Your task to perform on an android device: What is the news today? Image 0: 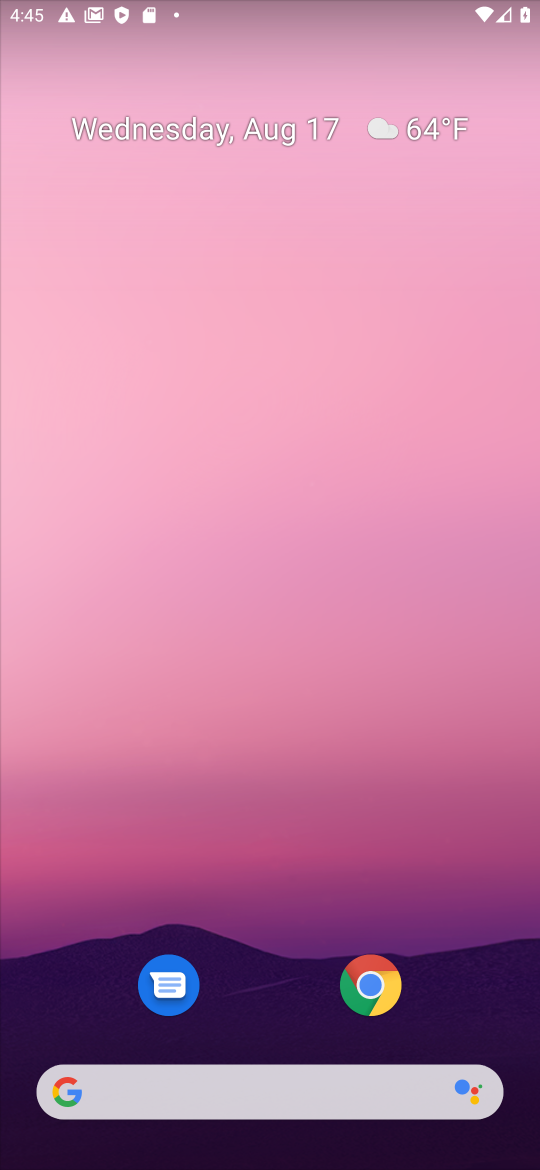
Step 0: drag from (237, 1117) to (340, 341)
Your task to perform on an android device: What is the news today? Image 1: 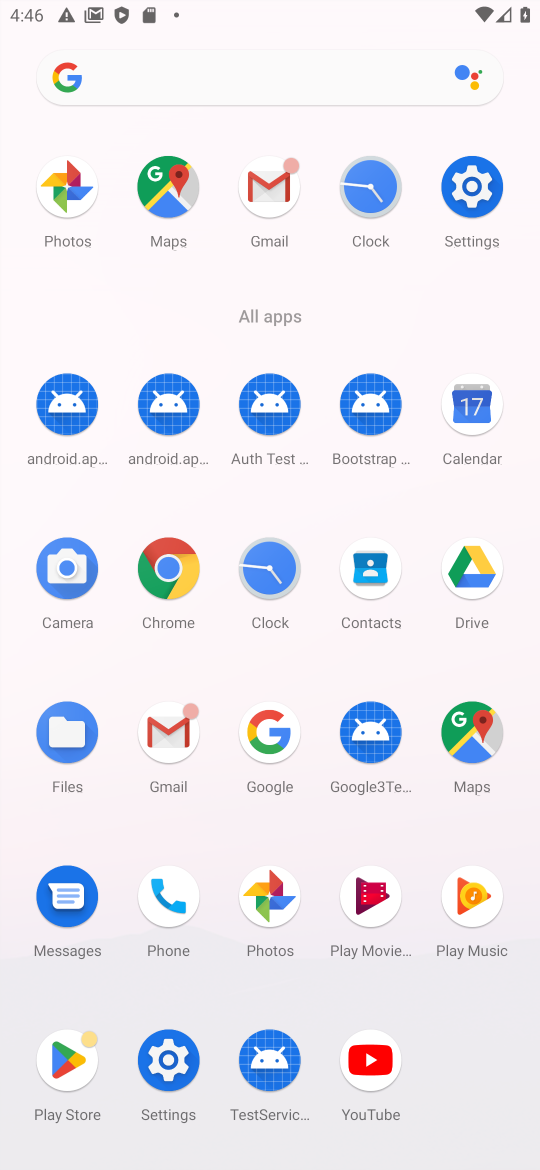
Step 1: click (273, 732)
Your task to perform on an android device: What is the news today? Image 2: 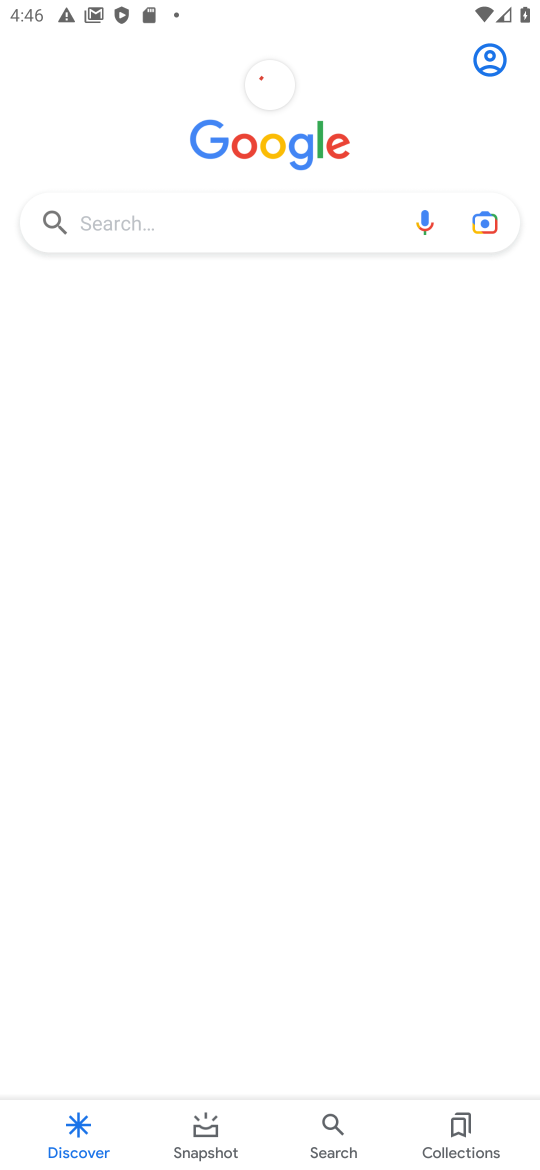
Step 2: click (237, 238)
Your task to perform on an android device: What is the news today? Image 3: 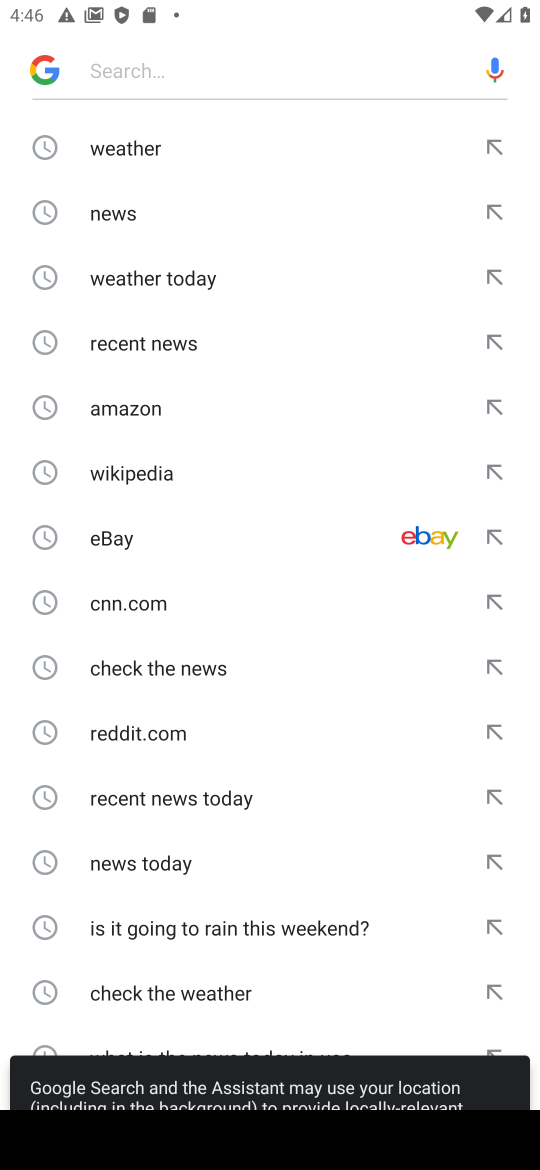
Step 3: click (133, 222)
Your task to perform on an android device: What is the news today? Image 4: 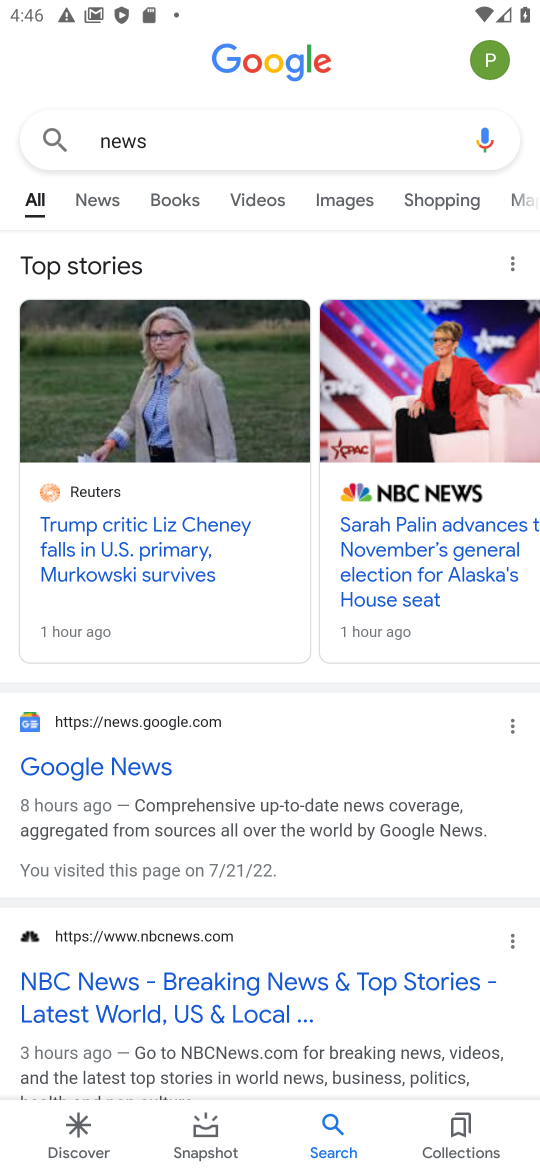
Step 4: click (143, 554)
Your task to perform on an android device: What is the news today? Image 5: 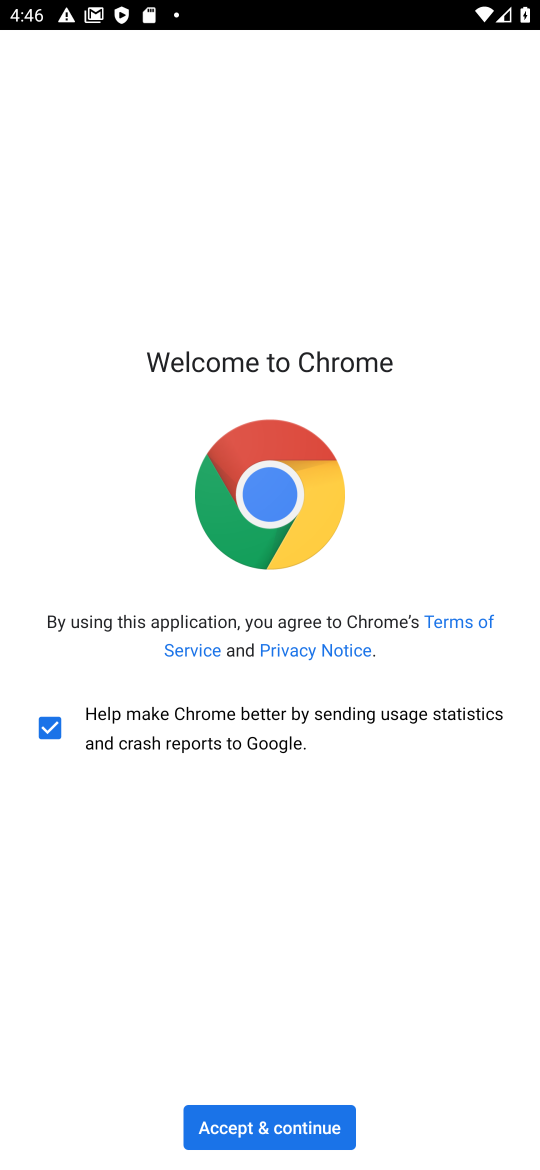
Step 5: click (255, 1127)
Your task to perform on an android device: What is the news today? Image 6: 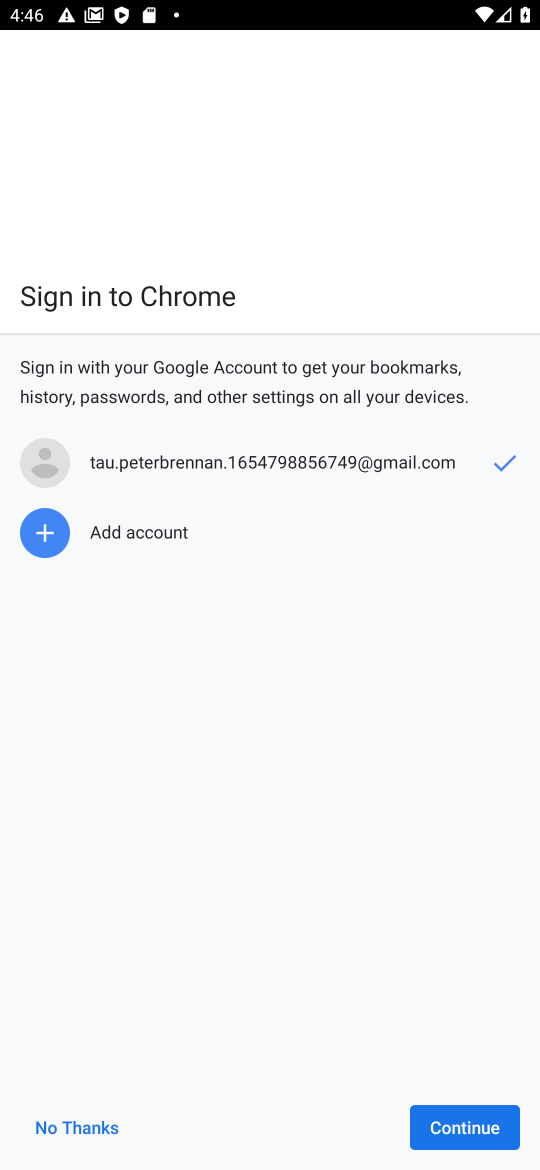
Step 6: click (478, 1131)
Your task to perform on an android device: What is the news today? Image 7: 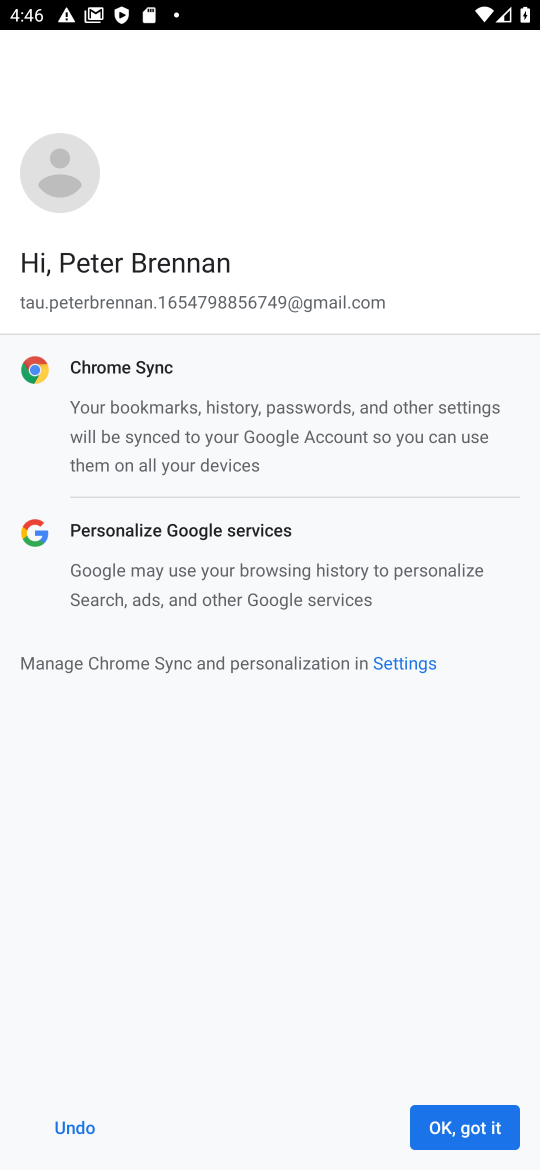
Step 7: click (478, 1131)
Your task to perform on an android device: What is the news today? Image 8: 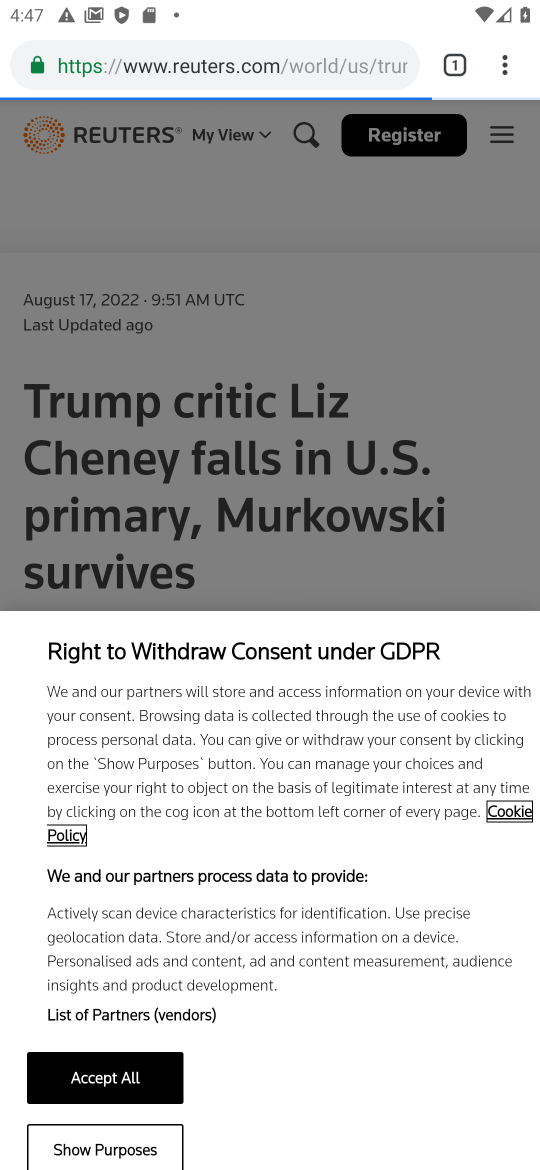
Step 8: click (90, 1089)
Your task to perform on an android device: What is the news today? Image 9: 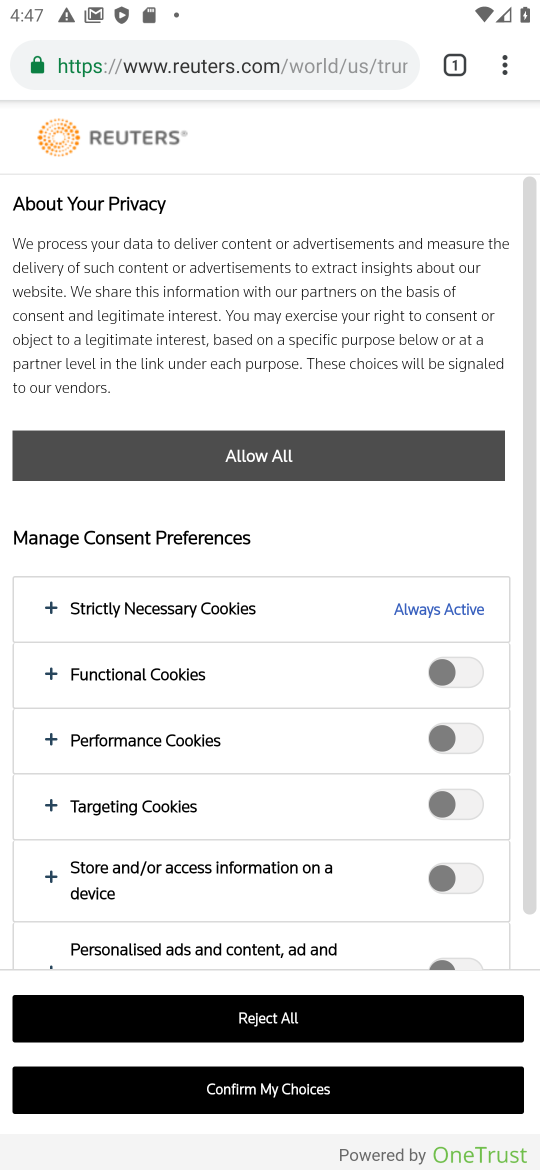
Step 9: task complete